Your task to perform on an android device: turn smart compose on in the gmail app Image 0: 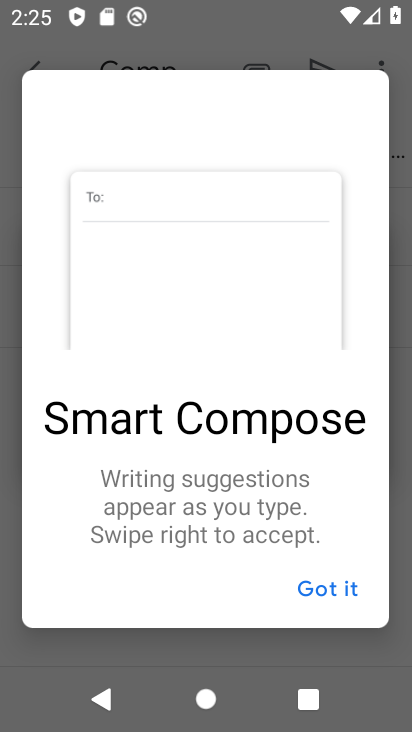
Step 0: press home button
Your task to perform on an android device: turn smart compose on in the gmail app Image 1: 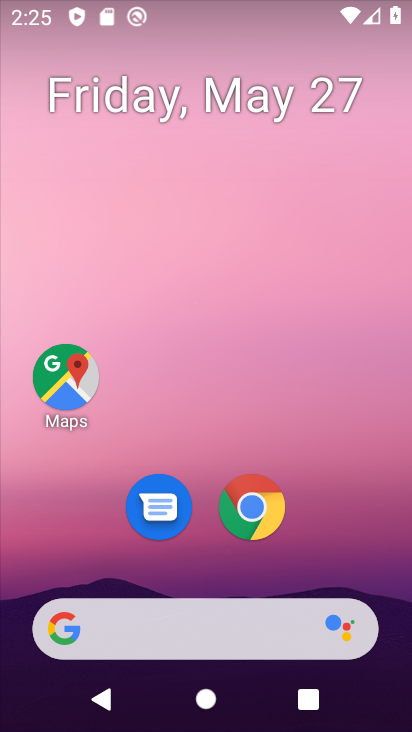
Step 1: drag from (184, 519) to (176, 182)
Your task to perform on an android device: turn smart compose on in the gmail app Image 2: 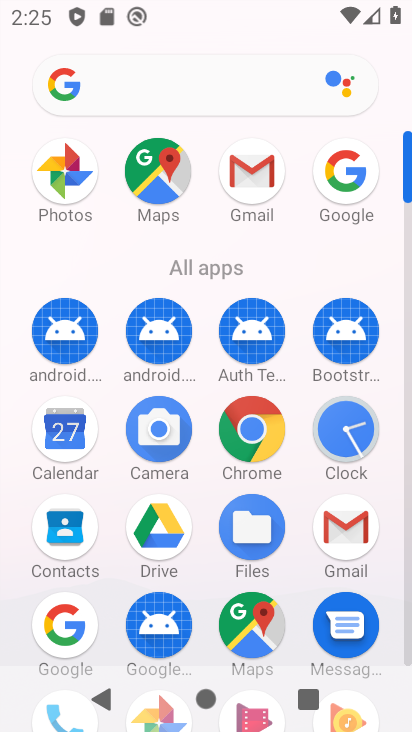
Step 2: click (355, 546)
Your task to perform on an android device: turn smart compose on in the gmail app Image 3: 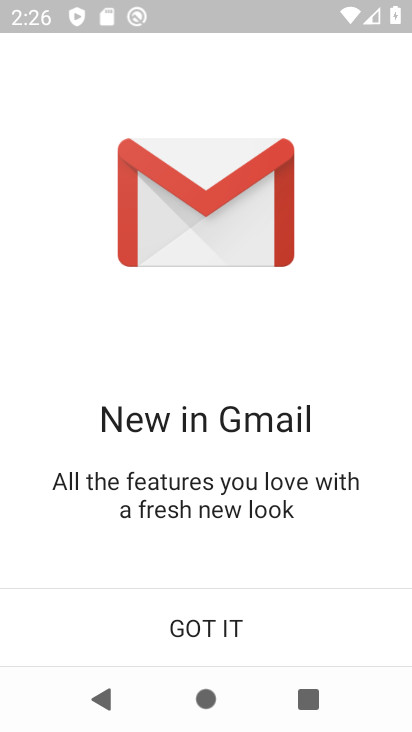
Step 3: click (200, 634)
Your task to perform on an android device: turn smart compose on in the gmail app Image 4: 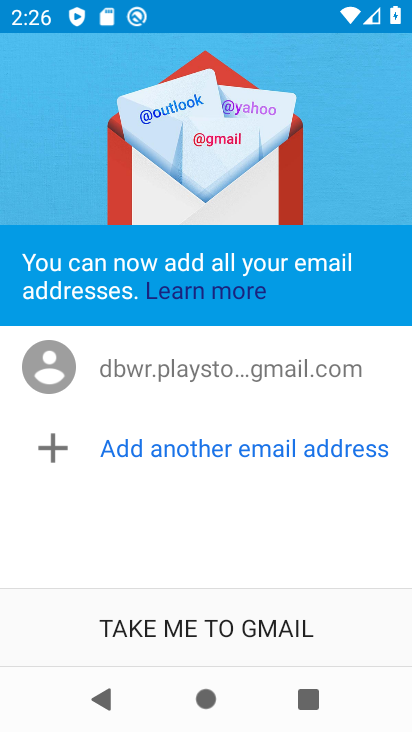
Step 4: click (200, 634)
Your task to perform on an android device: turn smart compose on in the gmail app Image 5: 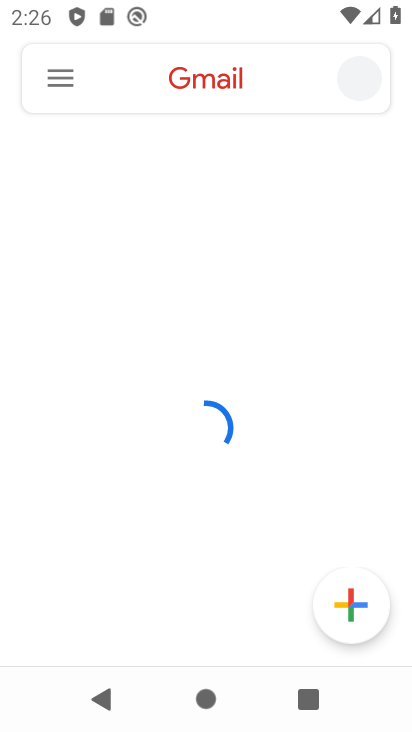
Step 5: click (55, 78)
Your task to perform on an android device: turn smart compose on in the gmail app Image 6: 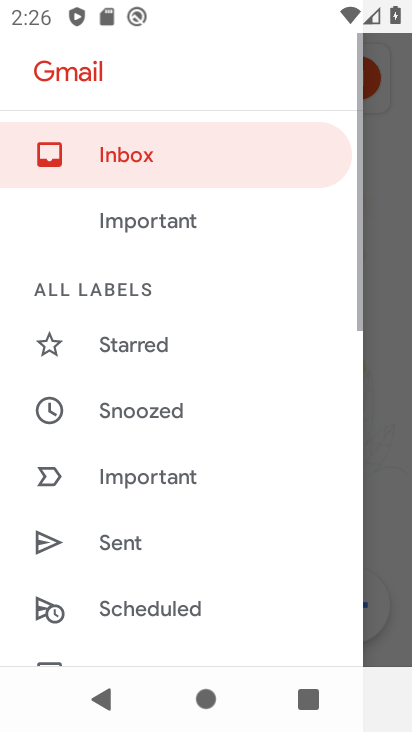
Step 6: drag from (193, 630) to (237, 262)
Your task to perform on an android device: turn smart compose on in the gmail app Image 7: 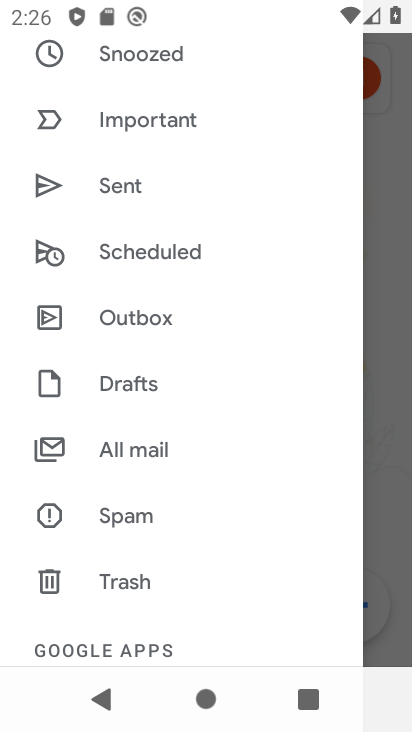
Step 7: drag from (153, 652) to (171, 183)
Your task to perform on an android device: turn smart compose on in the gmail app Image 8: 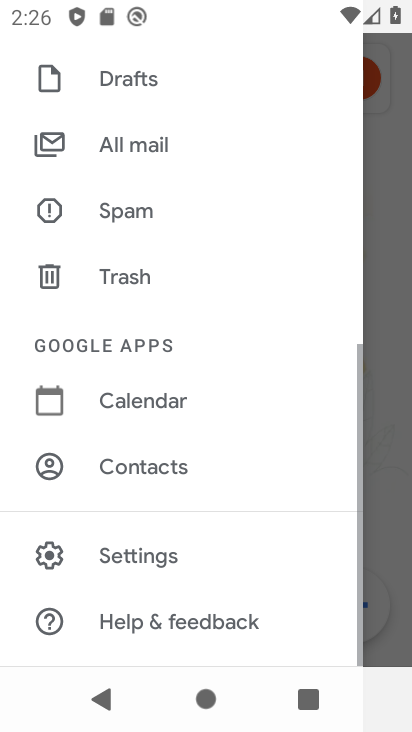
Step 8: click (145, 563)
Your task to perform on an android device: turn smart compose on in the gmail app Image 9: 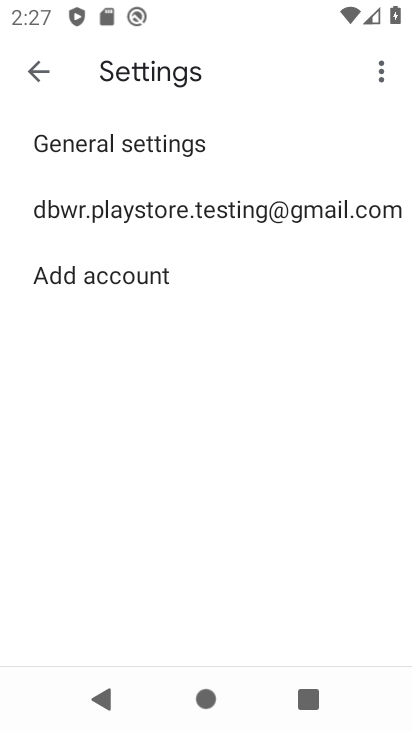
Step 9: click (55, 202)
Your task to perform on an android device: turn smart compose on in the gmail app Image 10: 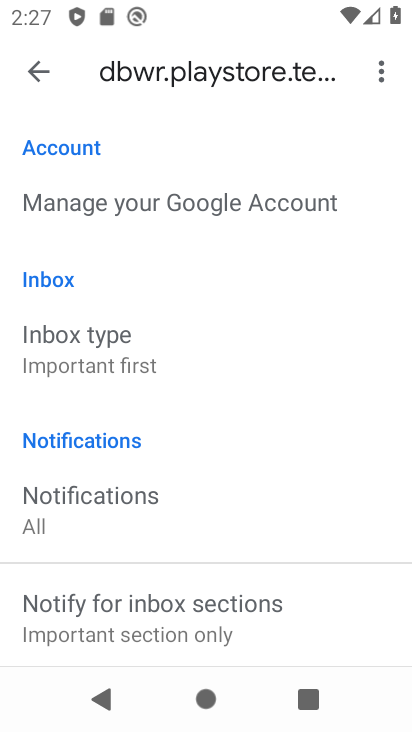
Step 10: task complete